Your task to perform on an android device: check storage Image 0: 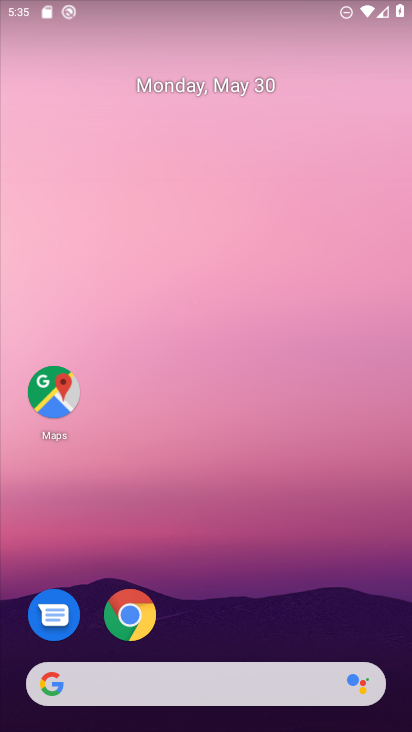
Step 0: task complete